Your task to perform on an android device: Open Amazon Image 0: 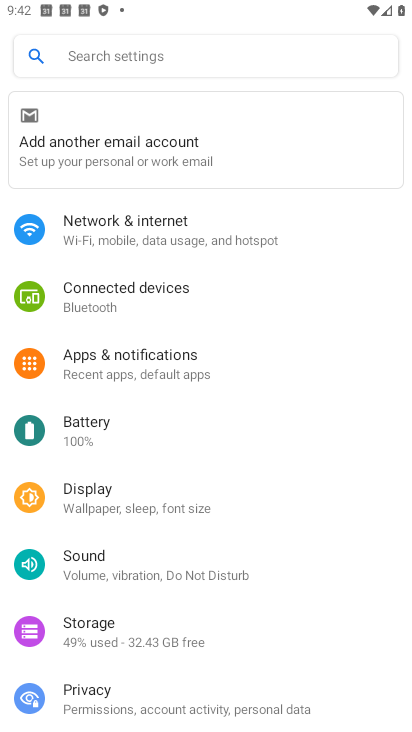
Step 0: press home button
Your task to perform on an android device: Open Amazon Image 1: 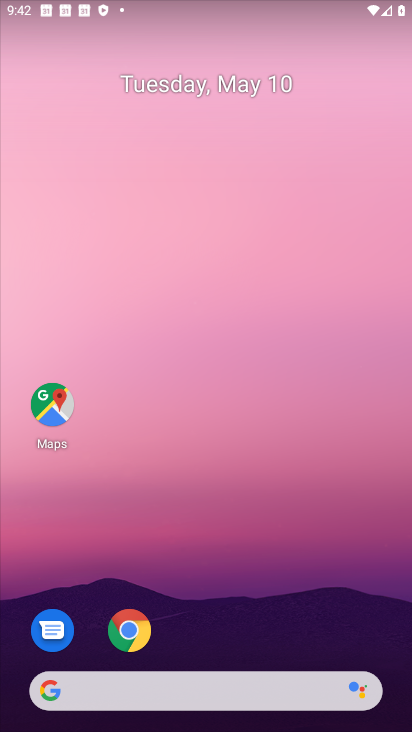
Step 1: click (191, 690)
Your task to perform on an android device: Open Amazon Image 2: 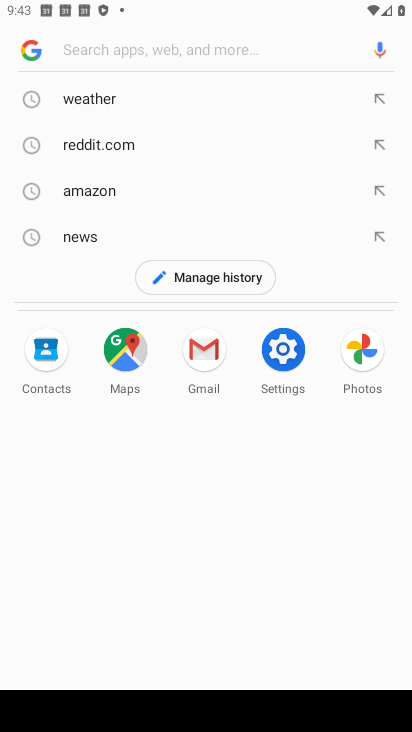
Step 2: click (209, 195)
Your task to perform on an android device: Open Amazon Image 3: 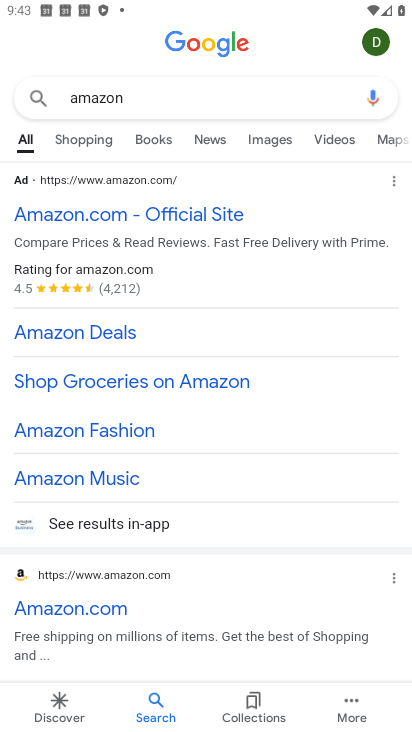
Step 3: click (137, 219)
Your task to perform on an android device: Open Amazon Image 4: 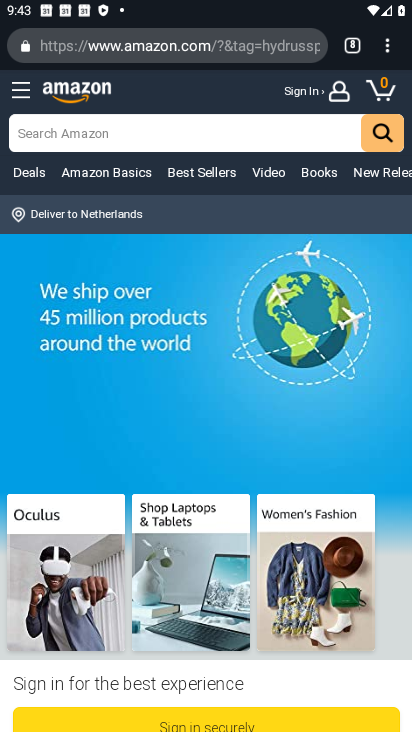
Step 4: task complete